Your task to perform on an android device: What's the news this weekend? Image 0: 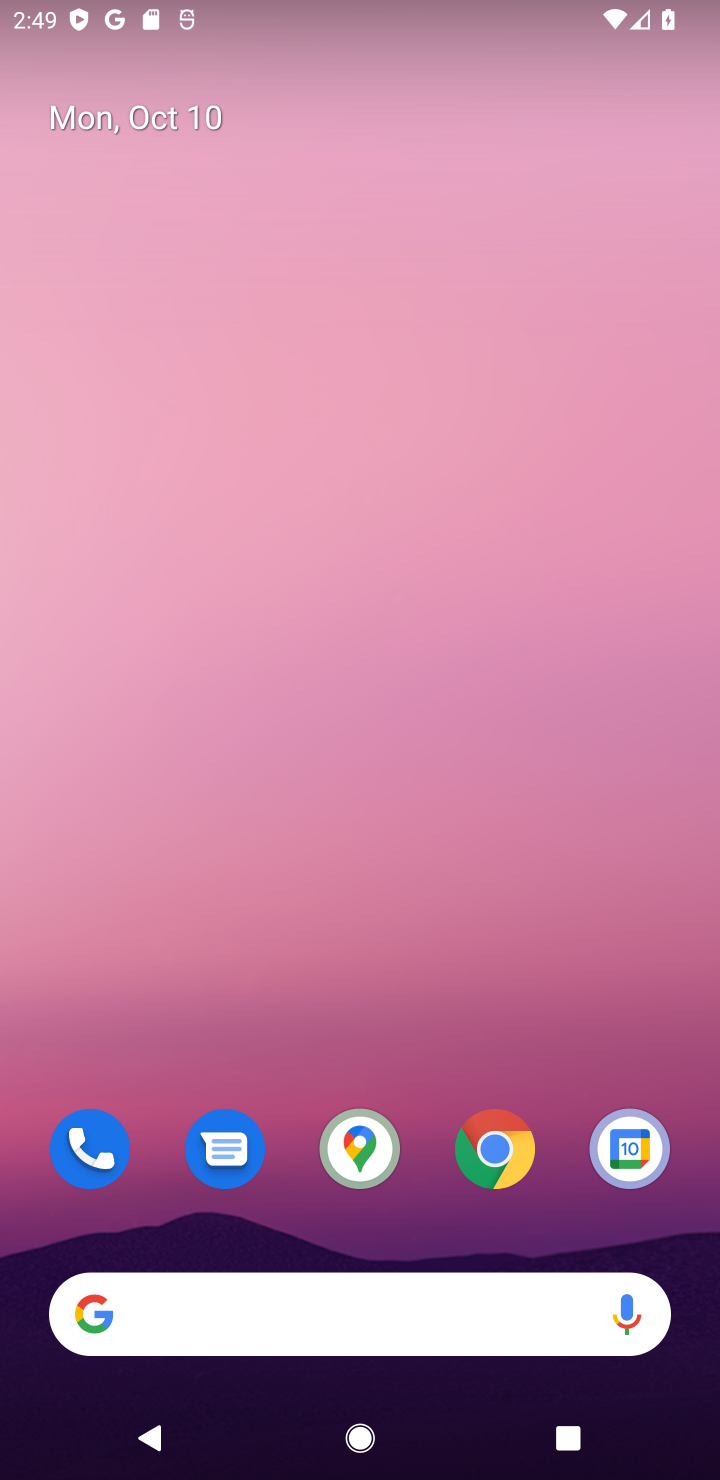
Step 0: click (249, 1283)
Your task to perform on an android device: What's the news this weekend? Image 1: 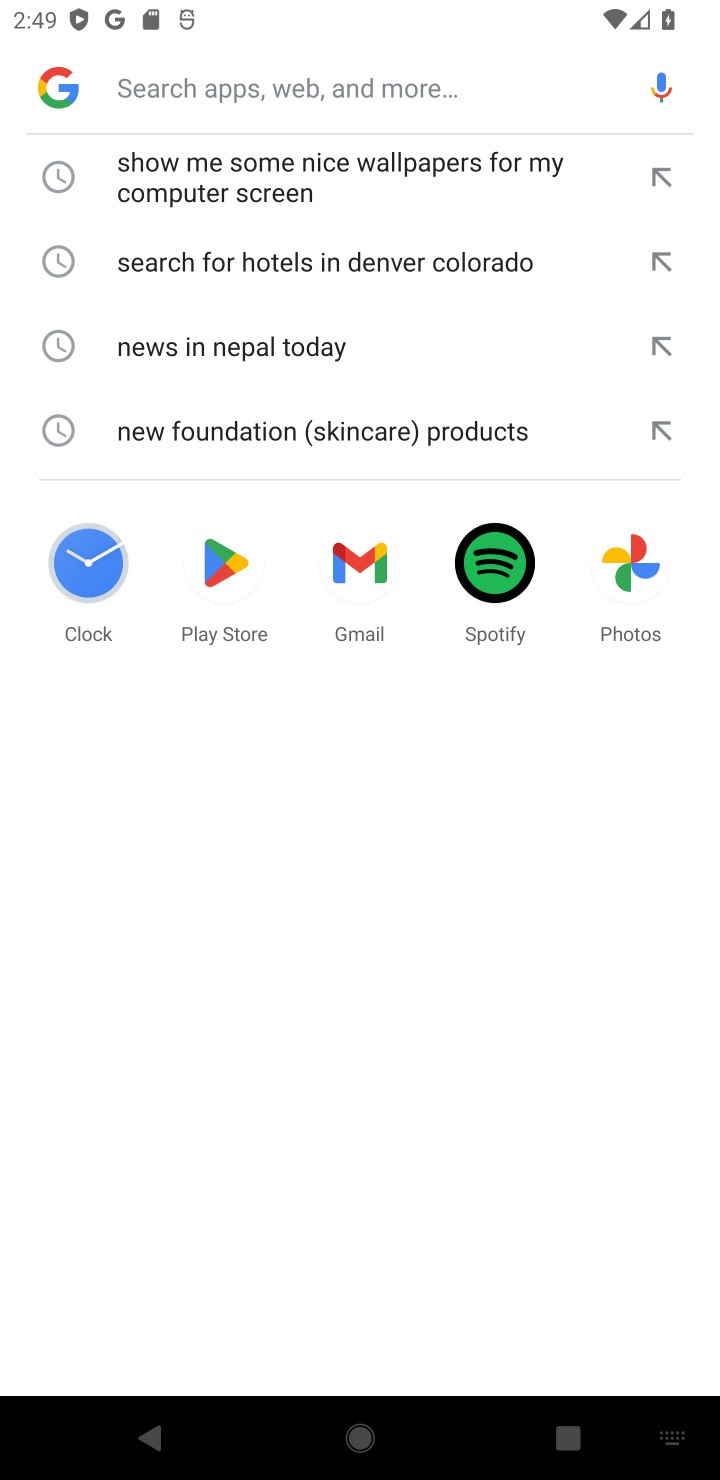
Step 1: type "news this weekend"
Your task to perform on an android device: What's the news this weekend? Image 2: 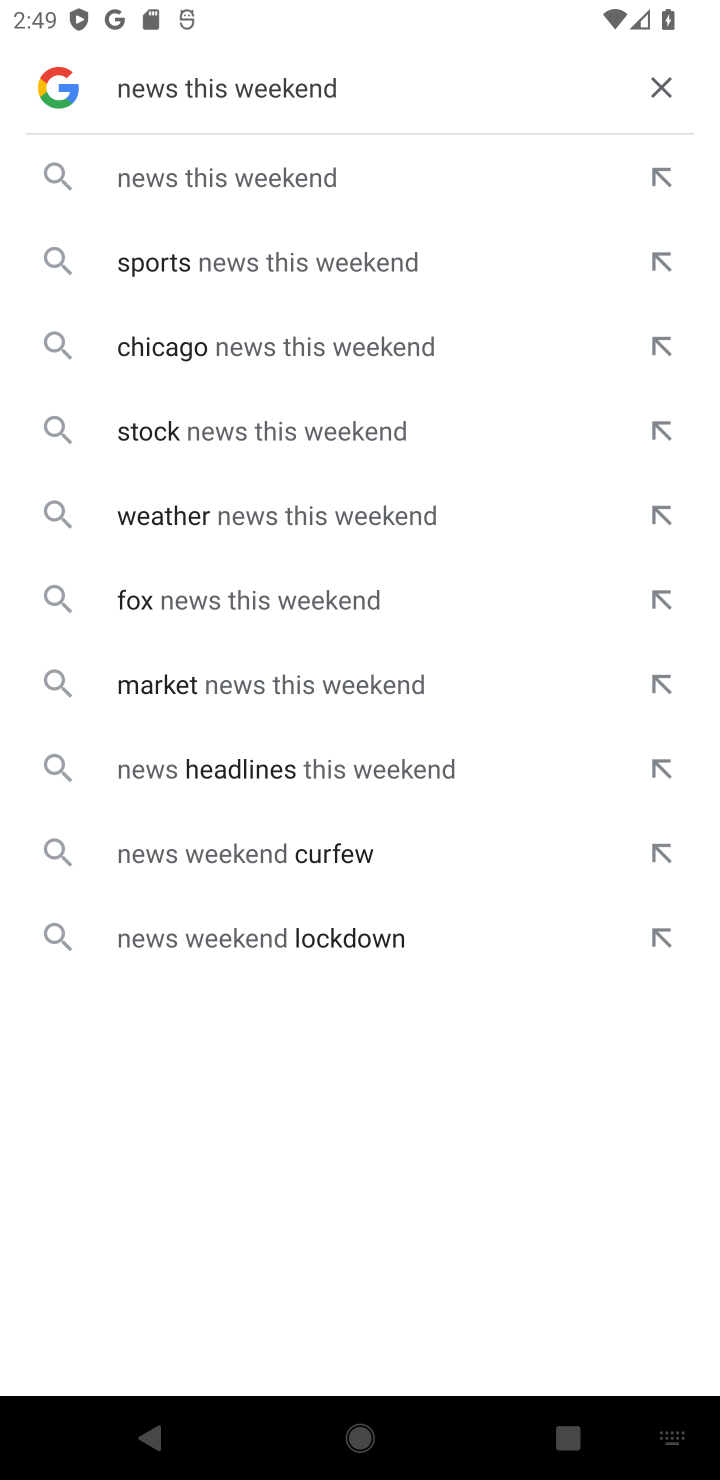
Step 2: click (262, 165)
Your task to perform on an android device: What's the news this weekend? Image 3: 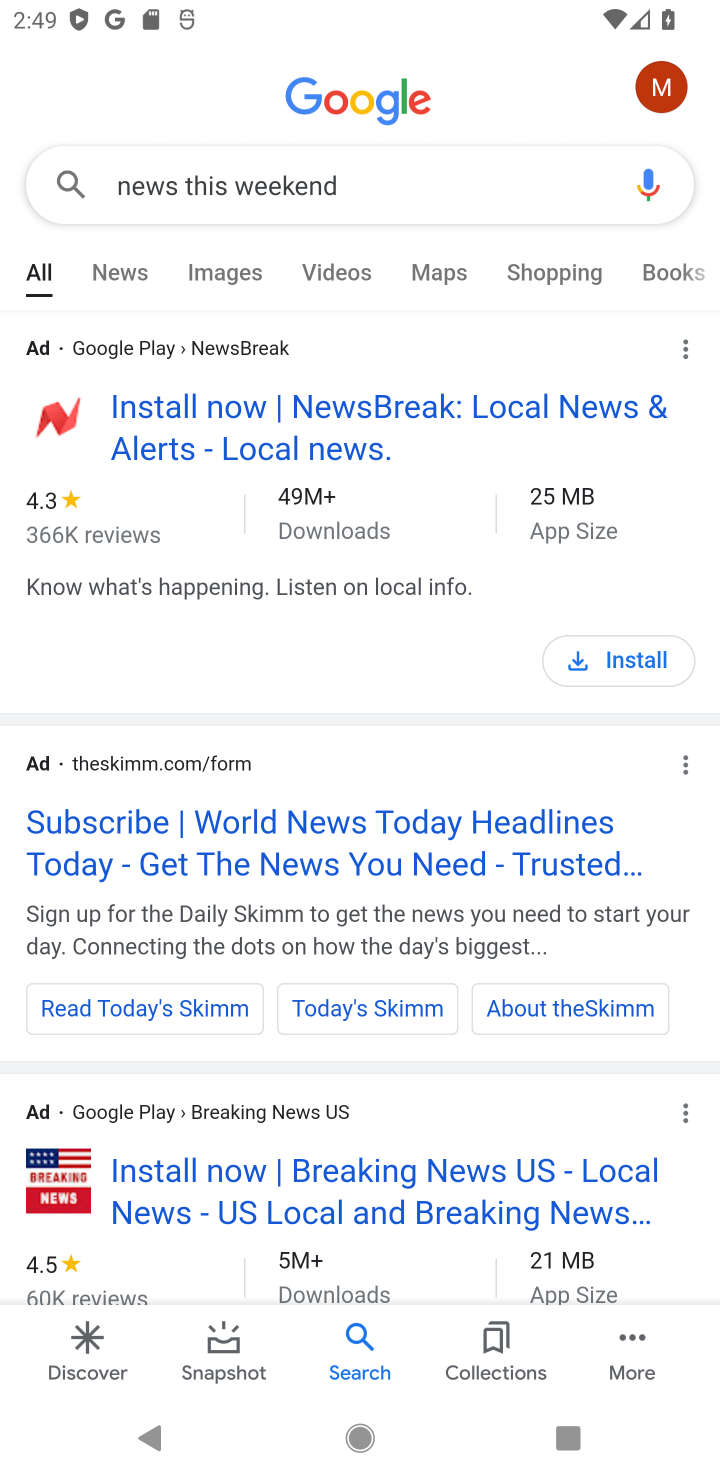
Step 3: task complete